Your task to perform on an android device: turn on improve location accuracy Image 0: 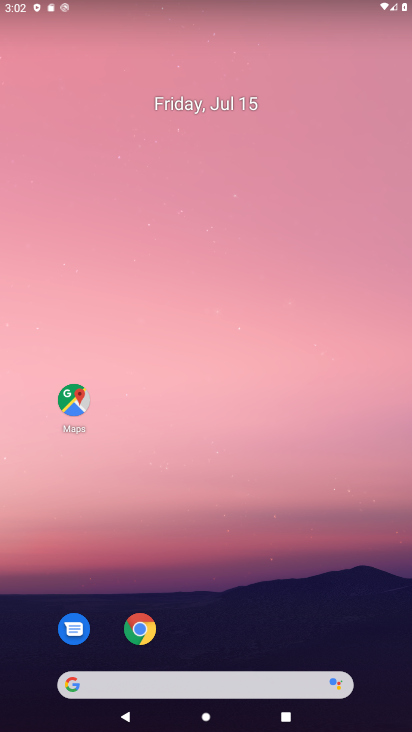
Step 0: drag from (272, 601) to (153, 146)
Your task to perform on an android device: turn on improve location accuracy Image 1: 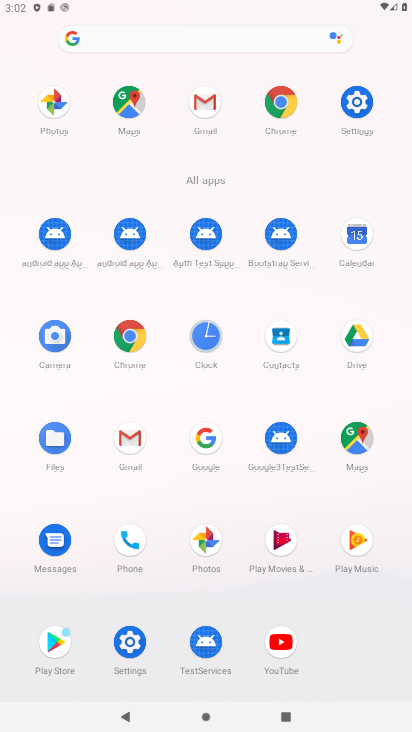
Step 1: click (366, 104)
Your task to perform on an android device: turn on improve location accuracy Image 2: 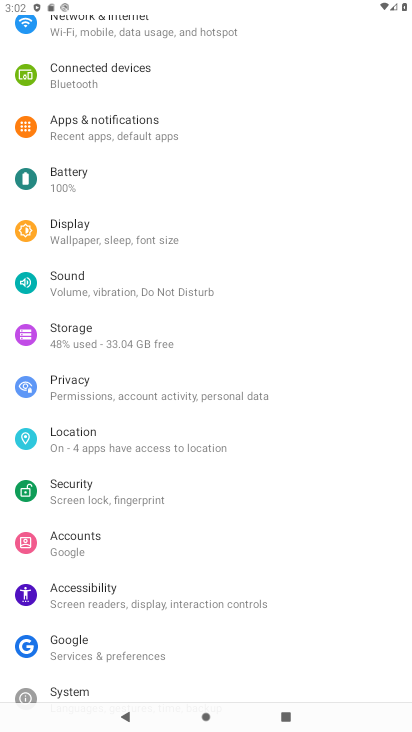
Step 2: click (102, 437)
Your task to perform on an android device: turn on improve location accuracy Image 3: 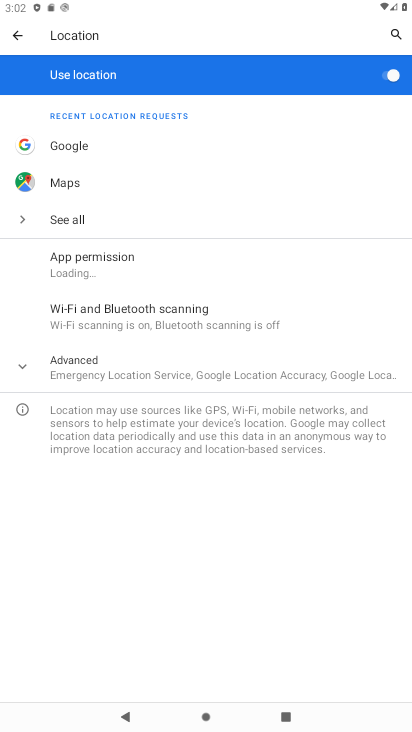
Step 3: click (101, 357)
Your task to perform on an android device: turn on improve location accuracy Image 4: 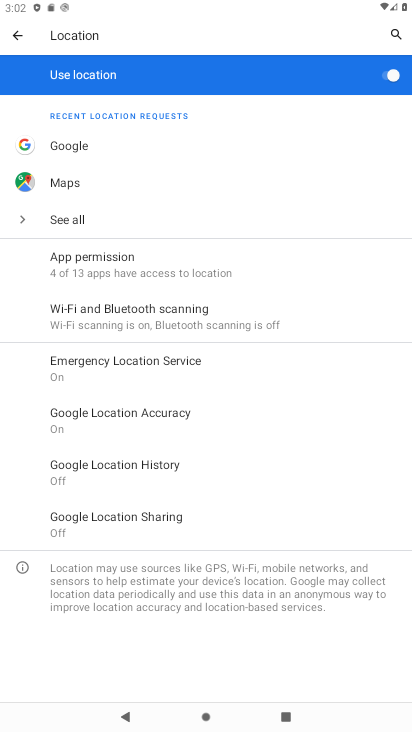
Step 4: click (160, 416)
Your task to perform on an android device: turn on improve location accuracy Image 5: 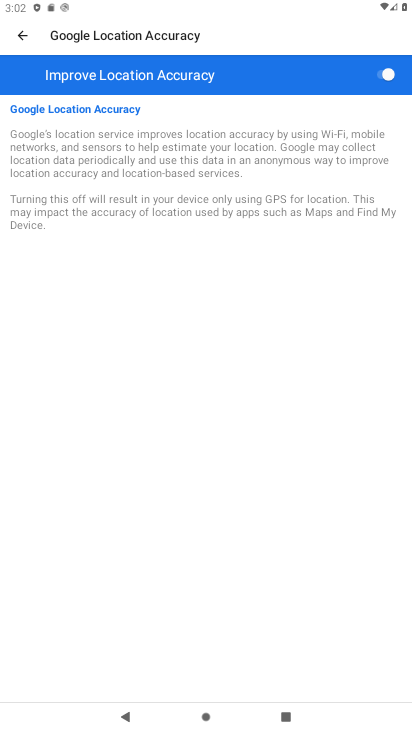
Step 5: task complete